Your task to perform on an android device: search for starred emails in the gmail app Image 0: 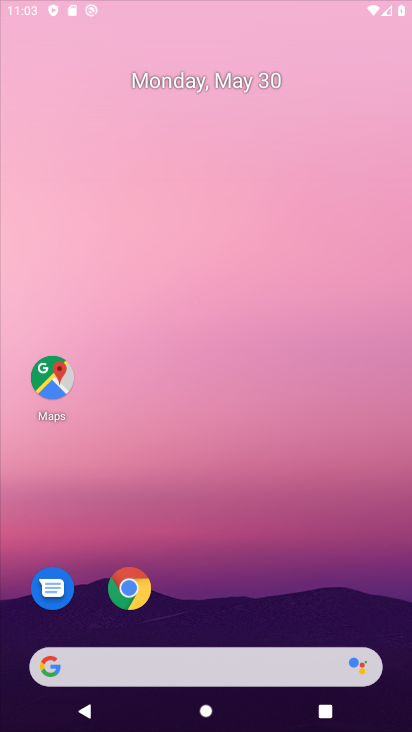
Step 0: press home button
Your task to perform on an android device: search for starred emails in the gmail app Image 1: 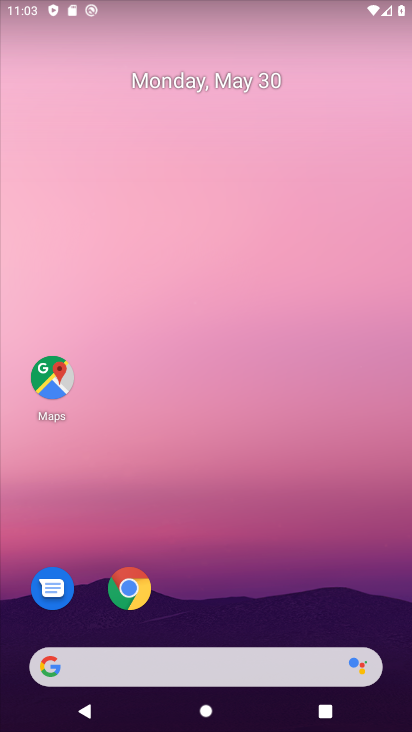
Step 1: drag from (209, 634) to (189, 42)
Your task to perform on an android device: search for starred emails in the gmail app Image 2: 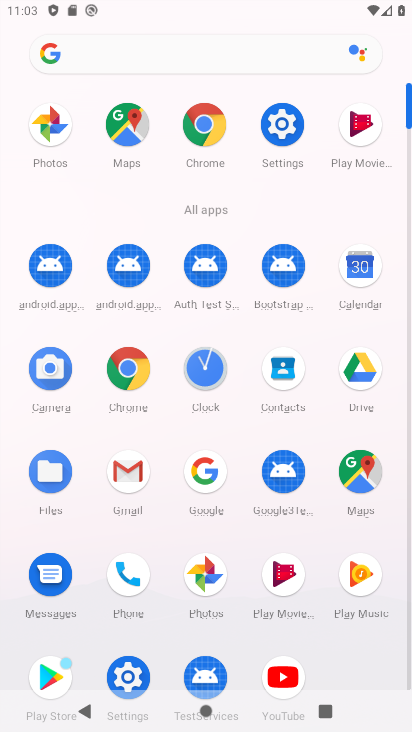
Step 2: click (130, 465)
Your task to perform on an android device: search for starred emails in the gmail app Image 3: 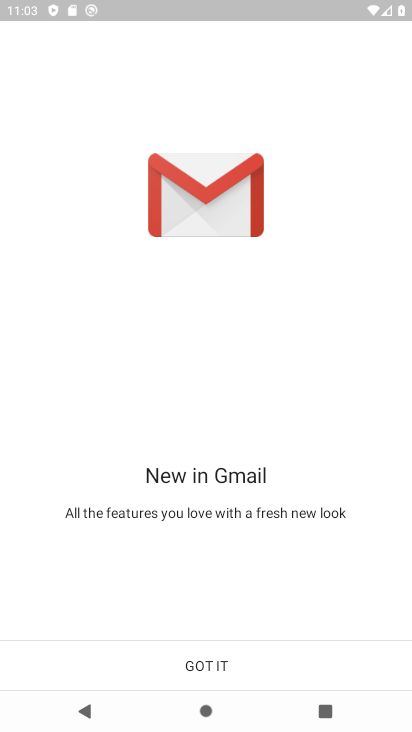
Step 3: click (213, 671)
Your task to perform on an android device: search for starred emails in the gmail app Image 4: 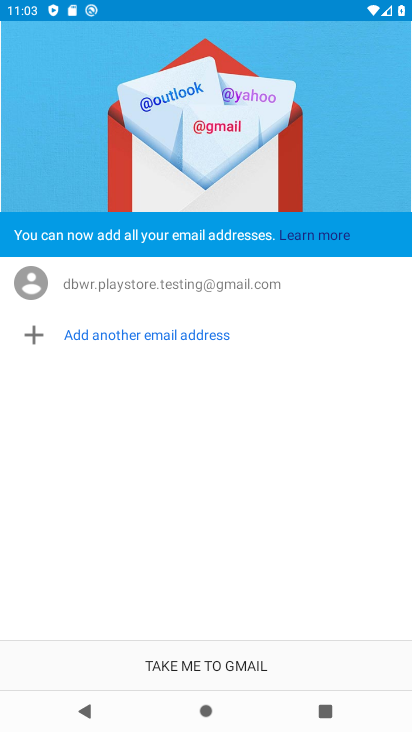
Step 4: click (213, 671)
Your task to perform on an android device: search for starred emails in the gmail app Image 5: 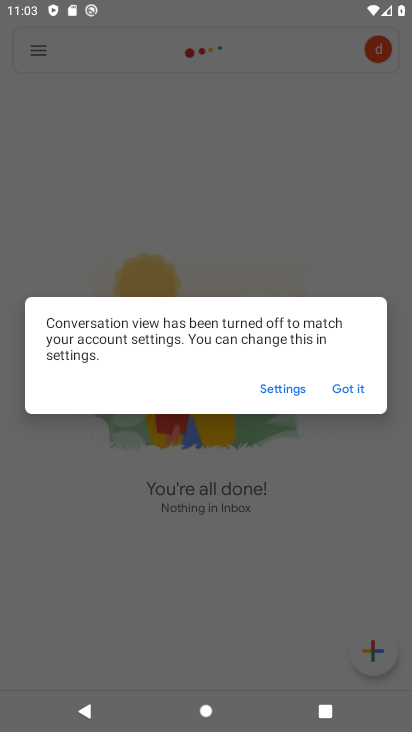
Step 5: click (351, 385)
Your task to perform on an android device: search for starred emails in the gmail app Image 6: 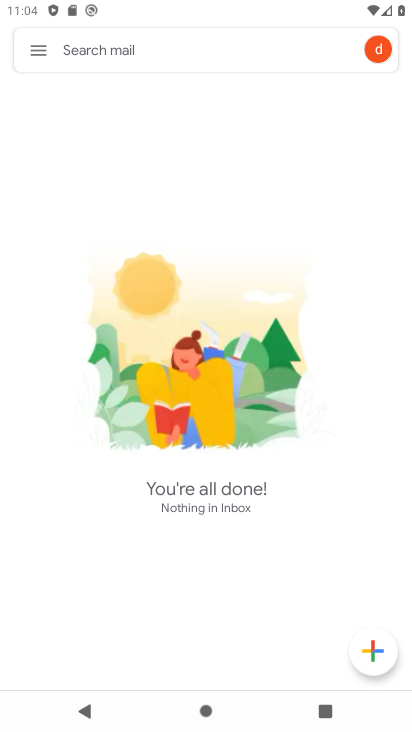
Step 6: click (31, 50)
Your task to perform on an android device: search for starred emails in the gmail app Image 7: 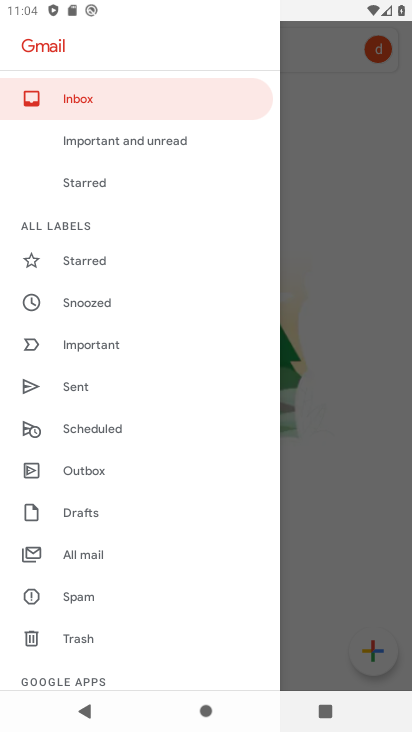
Step 7: click (91, 253)
Your task to perform on an android device: search for starred emails in the gmail app Image 8: 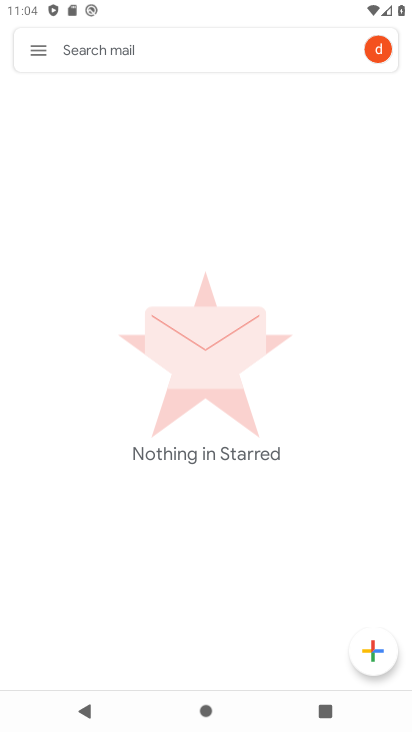
Step 8: task complete